Your task to perform on an android device: set default search engine in the chrome app Image 0: 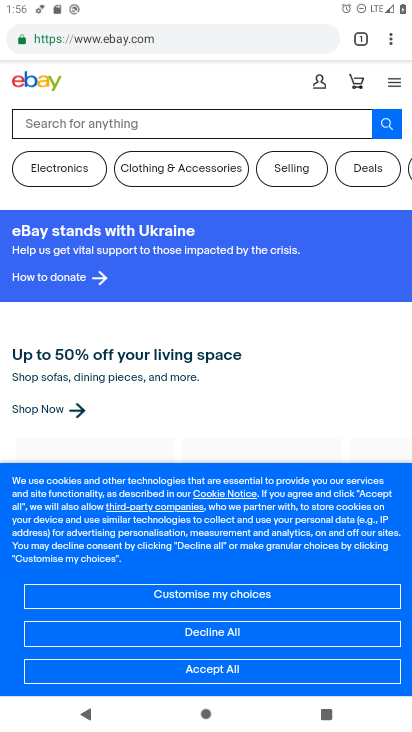
Step 0: click (386, 32)
Your task to perform on an android device: set default search engine in the chrome app Image 1: 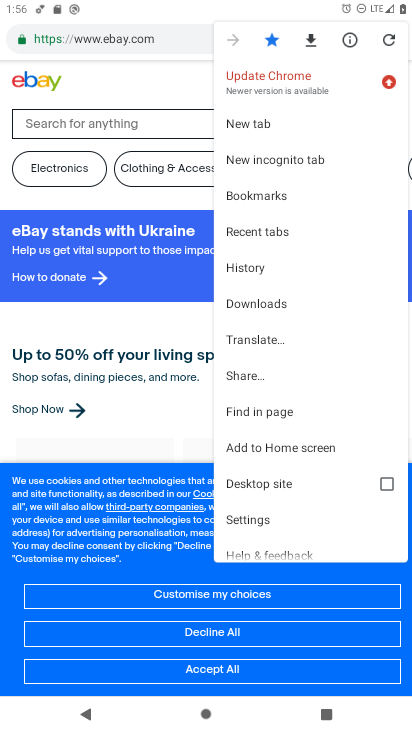
Step 1: click (252, 525)
Your task to perform on an android device: set default search engine in the chrome app Image 2: 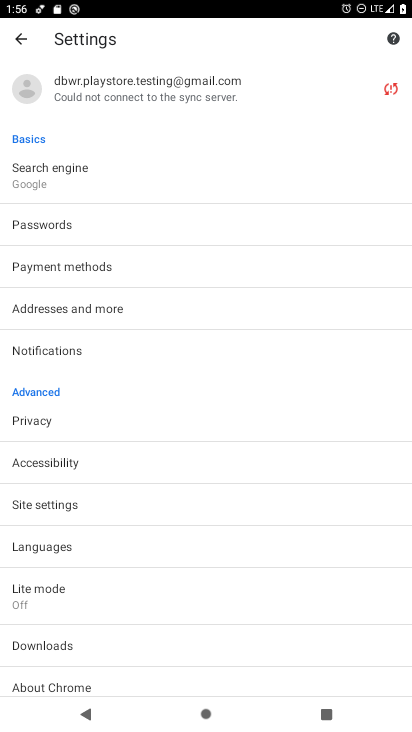
Step 2: click (55, 181)
Your task to perform on an android device: set default search engine in the chrome app Image 3: 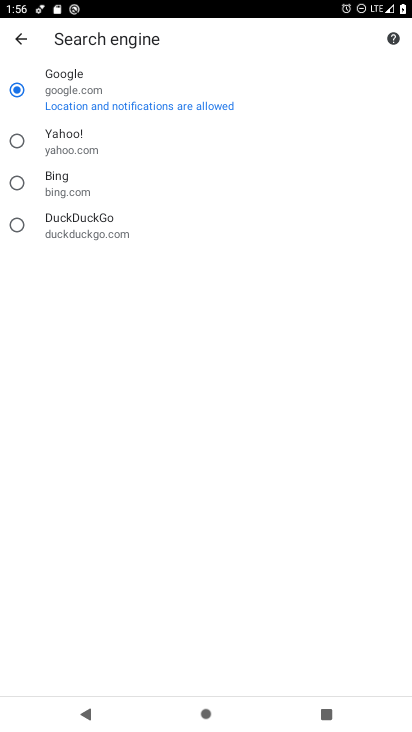
Step 3: click (60, 135)
Your task to perform on an android device: set default search engine in the chrome app Image 4: 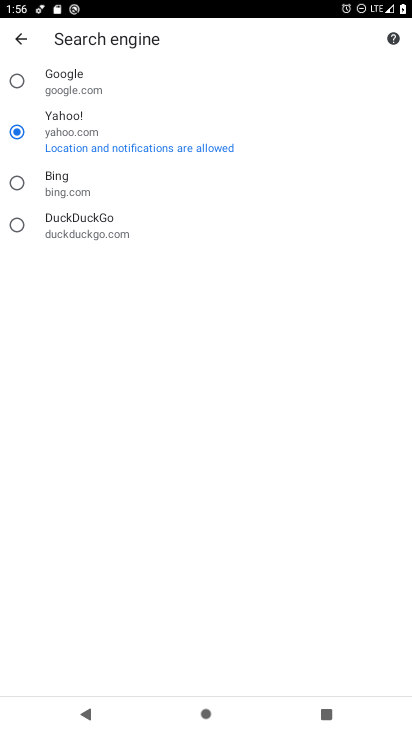
Step 4: task complete